Your task to perform on an android device: Turn on the flashlight Image 0: 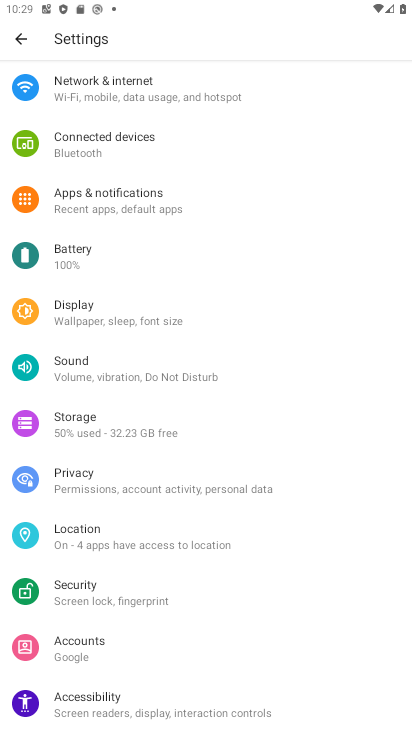
Step 0: drag from (173, 6) to (272, 507)
Your task to perform on an android device: Turn on the flashlight Image 1: 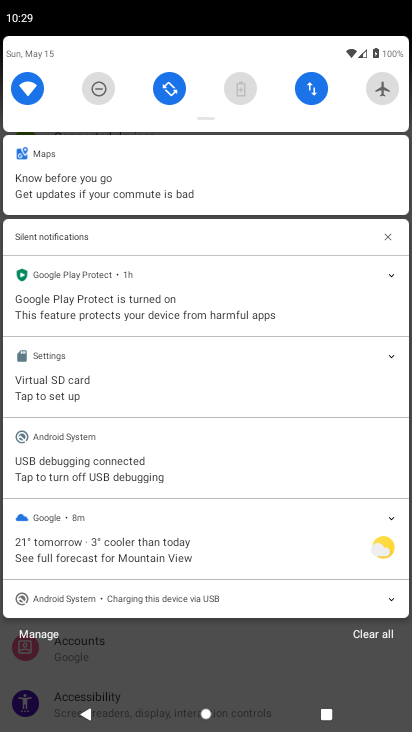
Step 1: drag from (213, 91) to (296, 495)
Your task to perform on an android device: Turn on the flashlight Image 2: 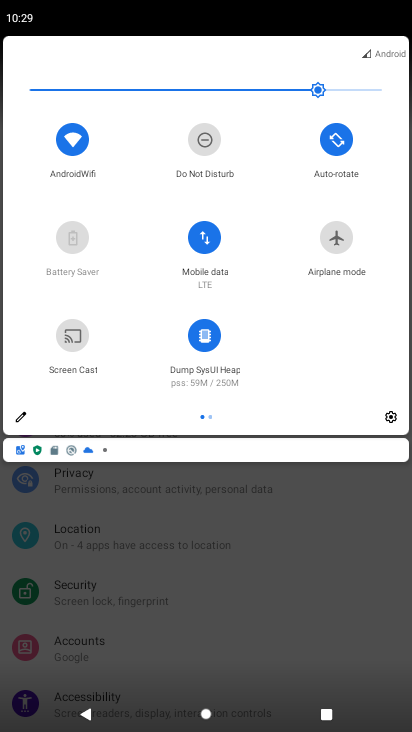
Step 2: drag from (287, 289) to (19, 362)
Your task to perform on an android device: Turn on the flashlight Image 3: 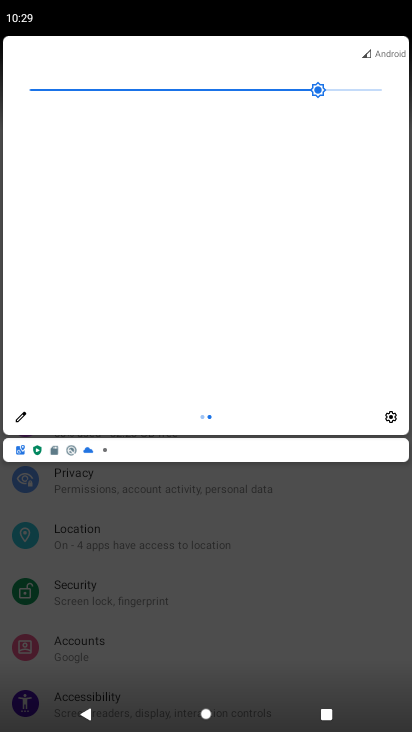
Step 3: click (18, 416)
Your task to perform on an android device: Turn on the flashlight Image 4: 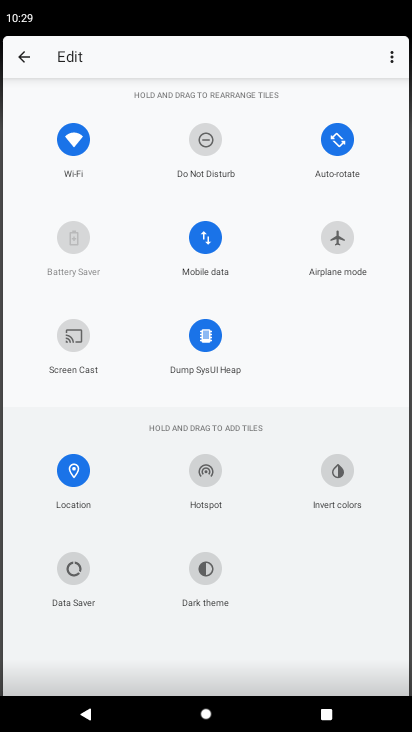
Step 4: task complete